Your task to perform on an android device: Go to display settings Image 0: 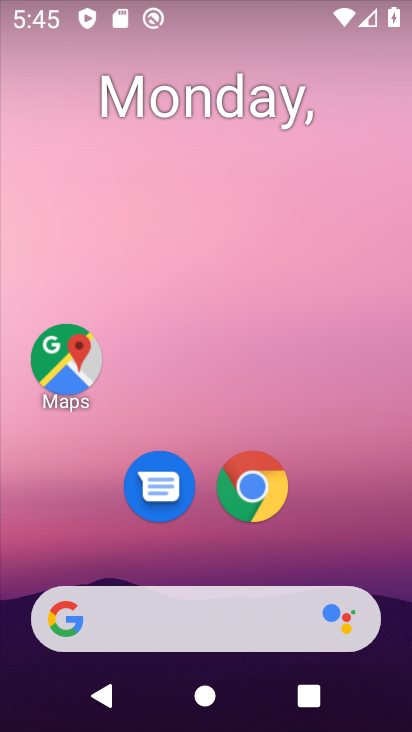
Step 0: drag from (341, 535) to (369, 97)
Your task to perform on an android device: Go to display settings Image 1: 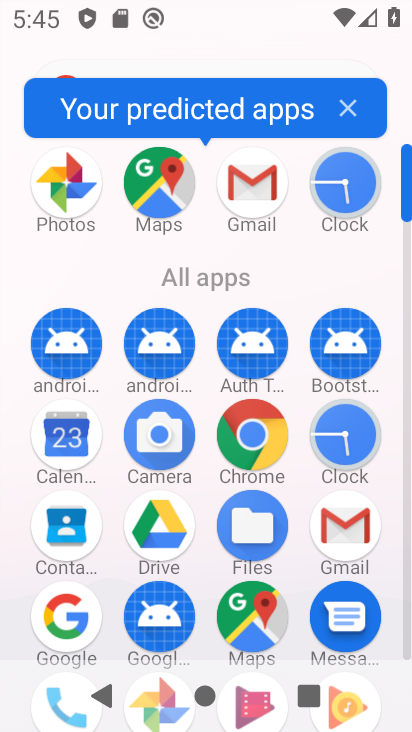
Step 1: drag from (301, 302) to (367, 15)
Your task to perform on an android device: Go to display settings Image 2: 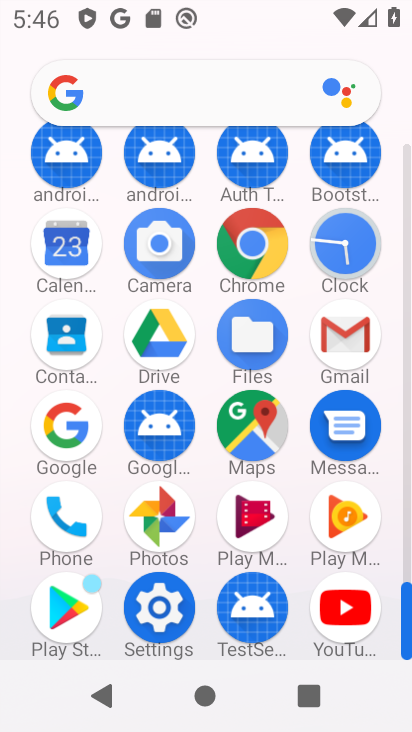
Step 2: click (156, 608)
Your task to perform on an android device: Go to display settings Image 3: 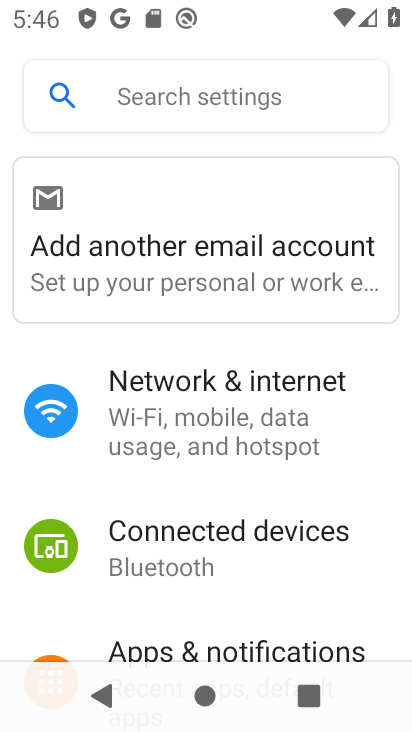
Step 3: drag from (345, 564) to (362, 163)
Your task to perform on an android device: Go to display settings Image 4: 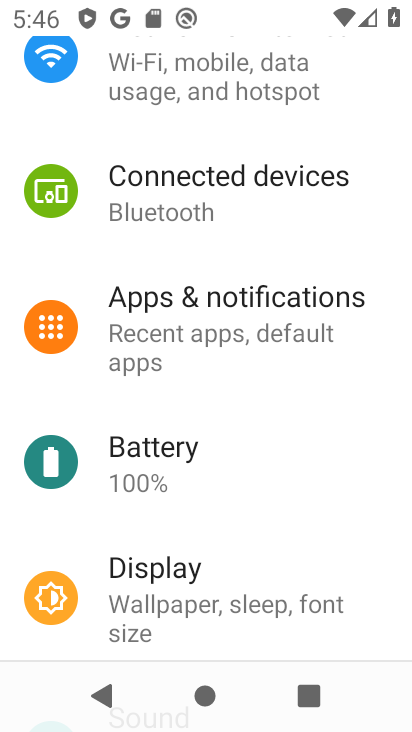
Step 4: click (180, 585)
Your task to perform on an android device: Go to display settings Image 5: 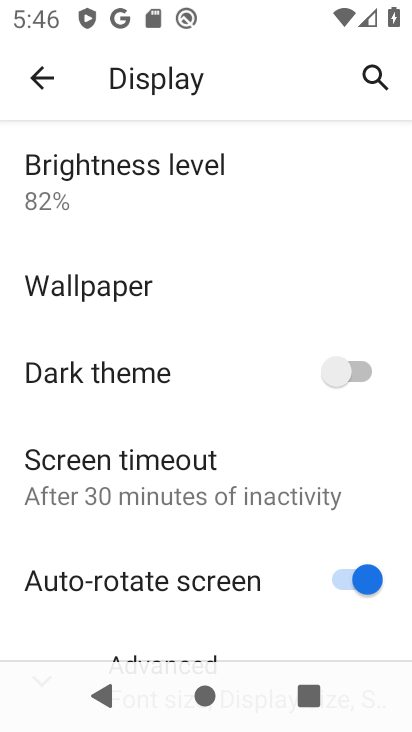
Step 5: task complete